Your task to perform on an android device: Open display settings Image 0: 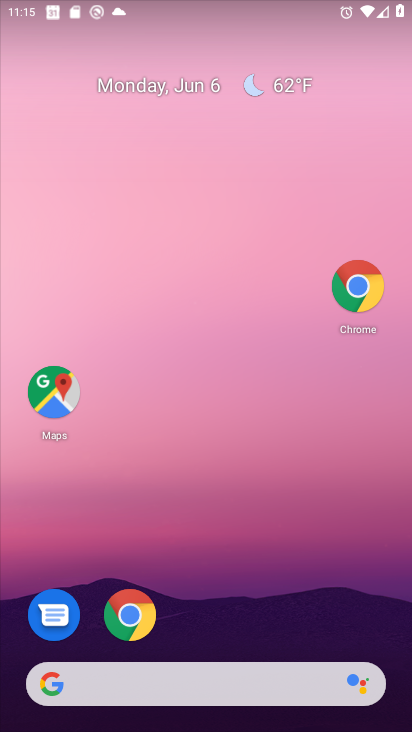
Step 0: drag from (279, 710) to (67, 174)
Your task to perform on an android device: Open display settings Image 1: 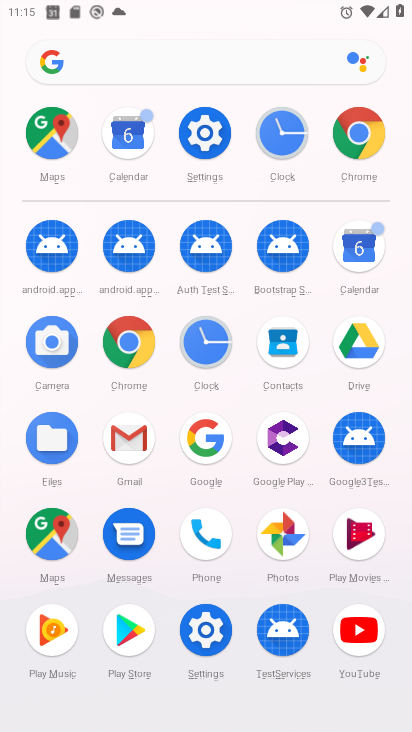
Step 1: click (188, 139)
Your task to perform on an android device: Open display settings Image 2: 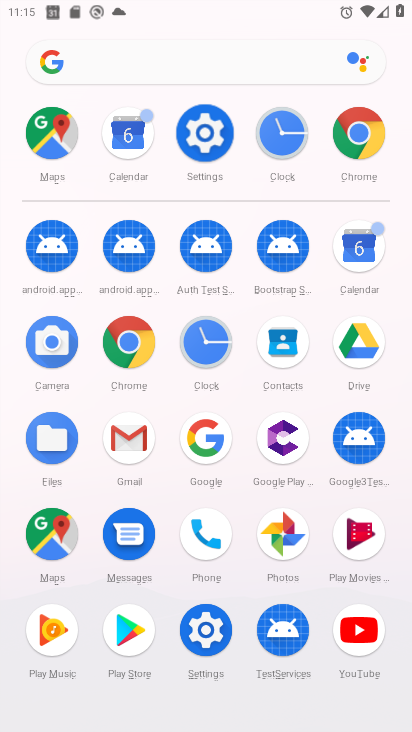
Step 2: click (195, 131)
Your task to perform on an android device: Open display settings Image 3: 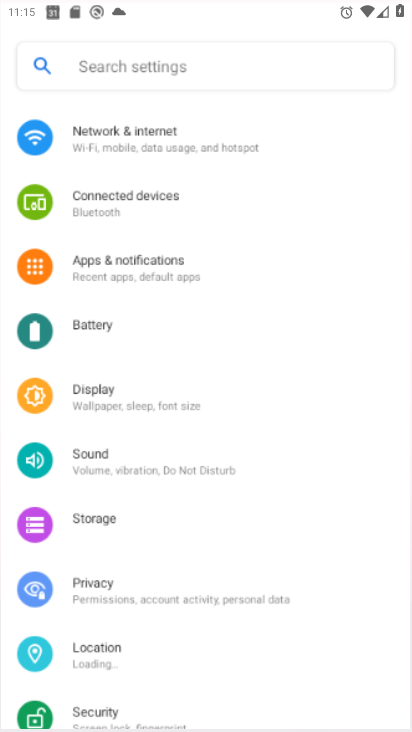
Step 3: click (195, 133)
Your task to perform on an android device: Open display settings Image 4: 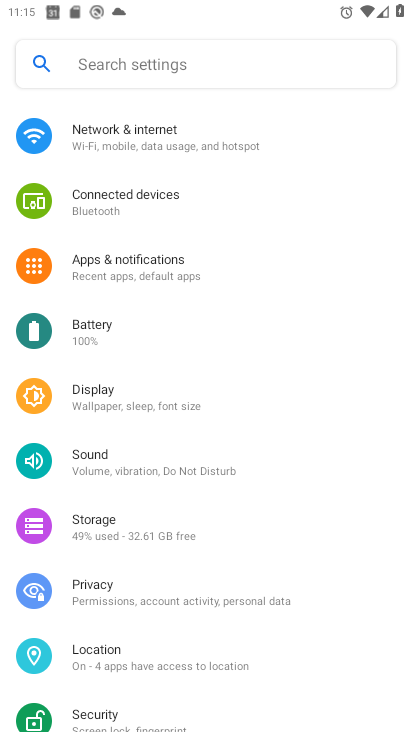
Step 4: click (195, 133)
Your task to perform on an android device: Open display settings Image 5: 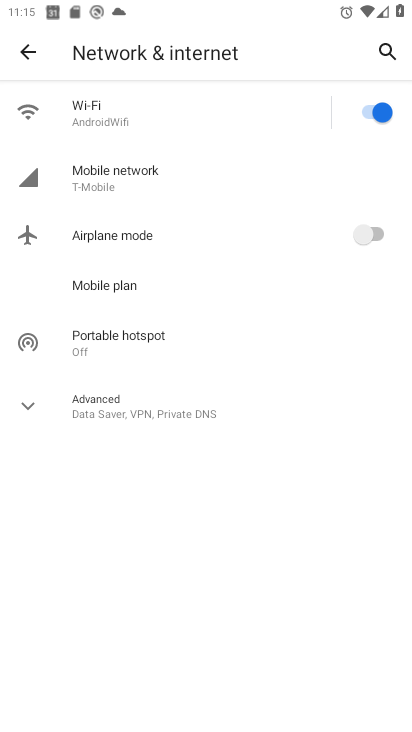
Step 5: click (22, 51)
Your task to perform on an android device: Open display settings Image 6: 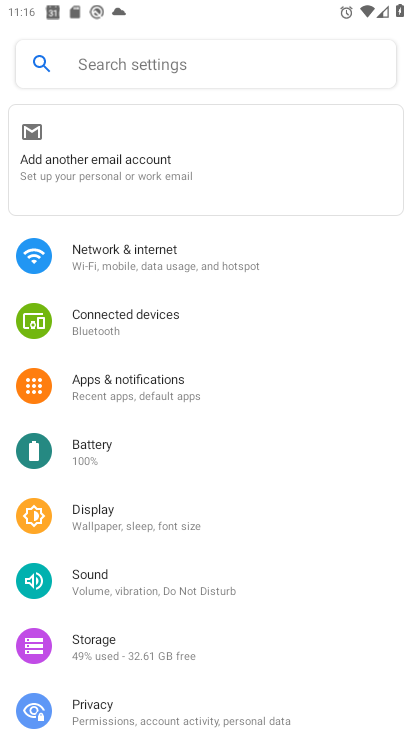
Step 6: click (108, 513)
Your task to perform on an android device: Open display settings Image 7: 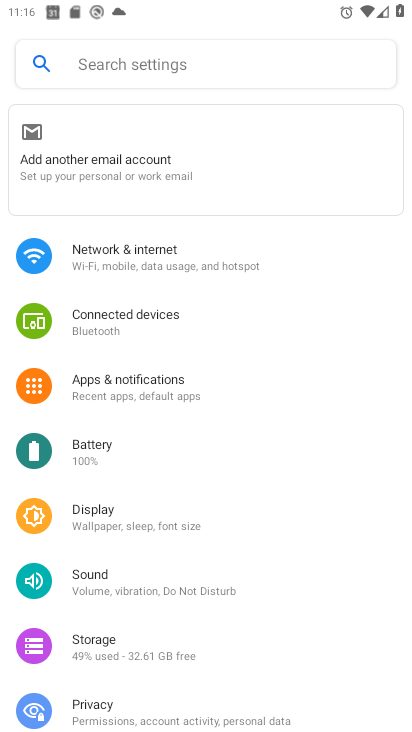
Step 7: click (108, 513)
Your task to perform on an android device: Open display settings Image 8: 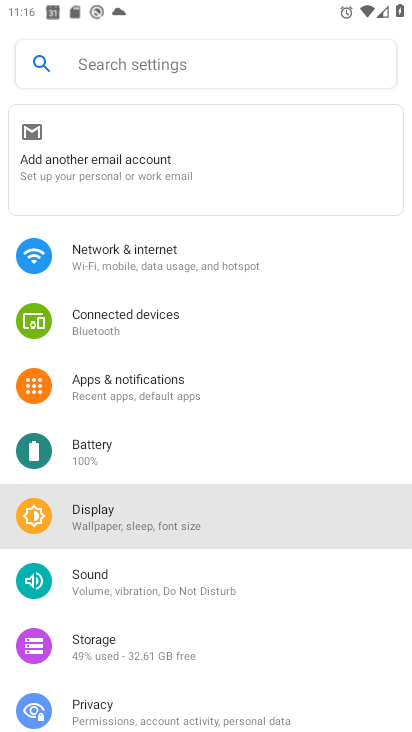
Step 8: click (108, 513)
Your task to perform on an android device: Open display settings Image 9: 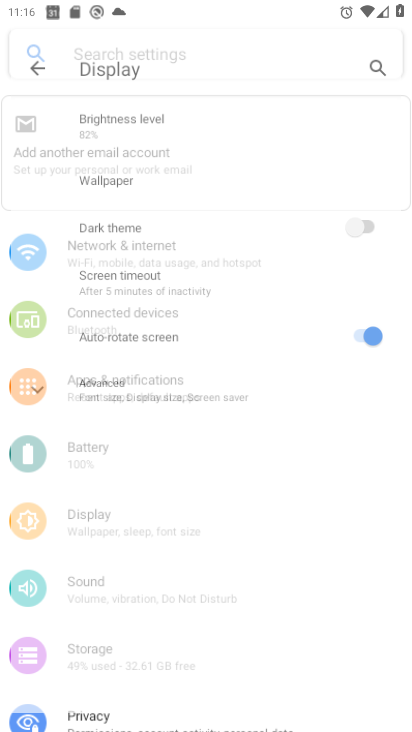
Step 9: click (108, 513)
Your task to perform on an android device: Open display settings Image 10: 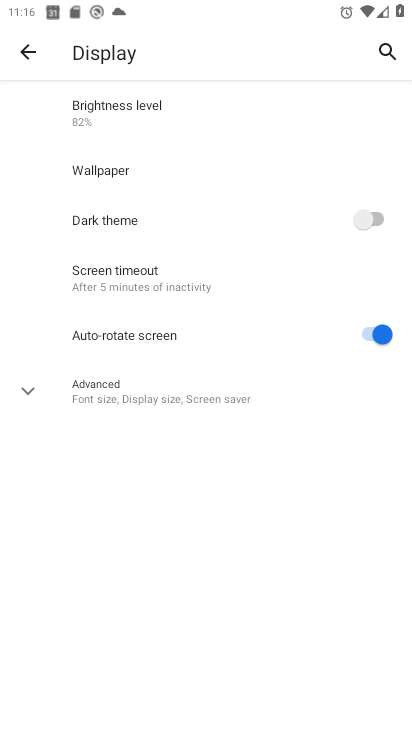
Step 10: task complete